Your task to perform on an android device: Open Chrome and go to settings Image 0: 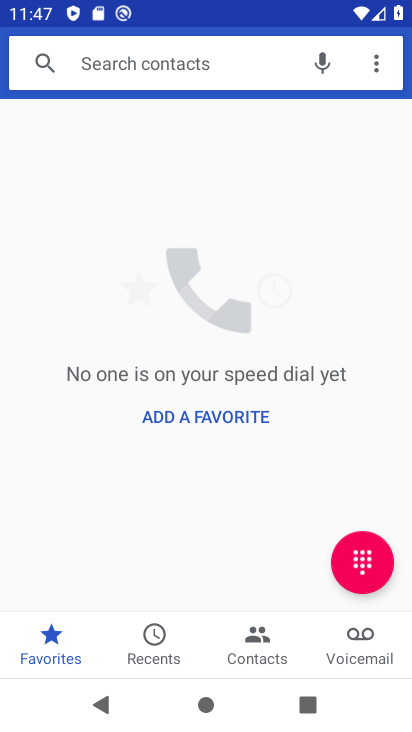
Step 0: press home button
Your task to perform on an android device: Open Chrome and go to settings Image 1: 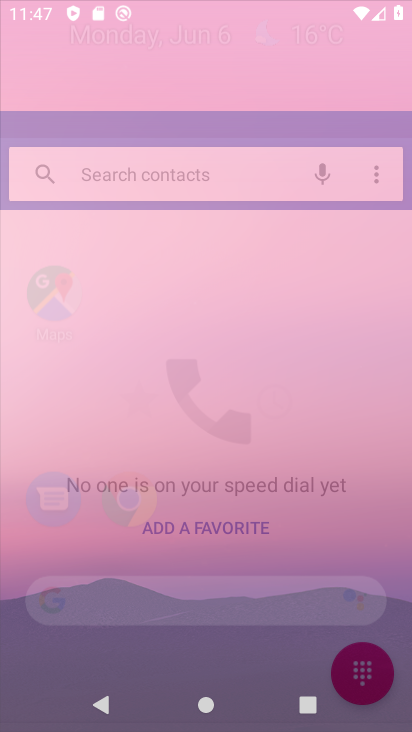
Step 1: drag from (146, 534) to (180, 142)
Your task to perform on an android device: Open Chrome and go to settings Image 2: 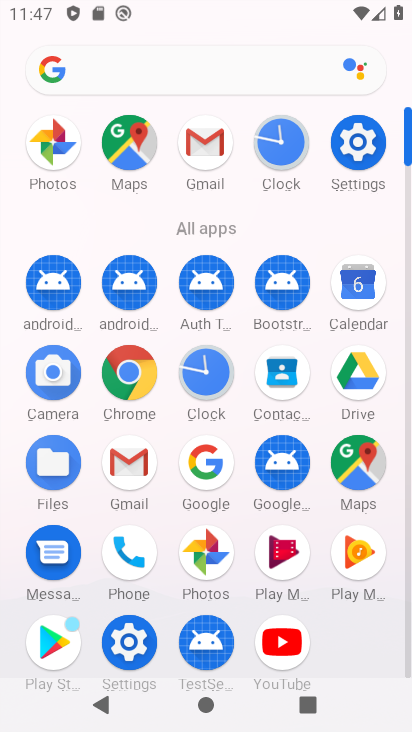
Step 2: click (122, 361)
Your task to perform on an android device: Open Chrome and go to settings Image 3: 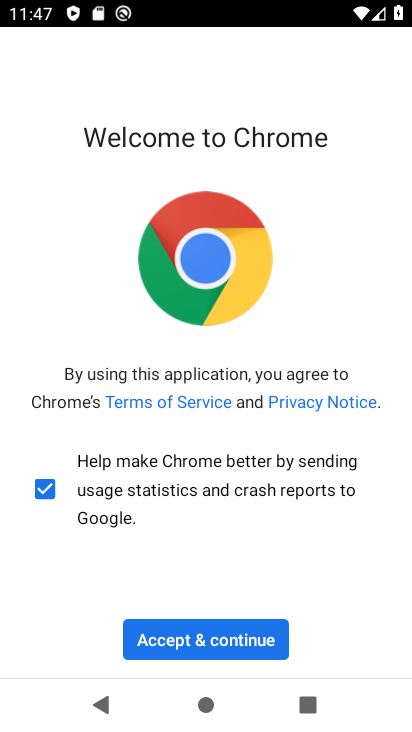
Step 3: drag from (221, 636) to (233, 247)
Your task to perform on an android device: Open Chrome and go to settings Image 4: 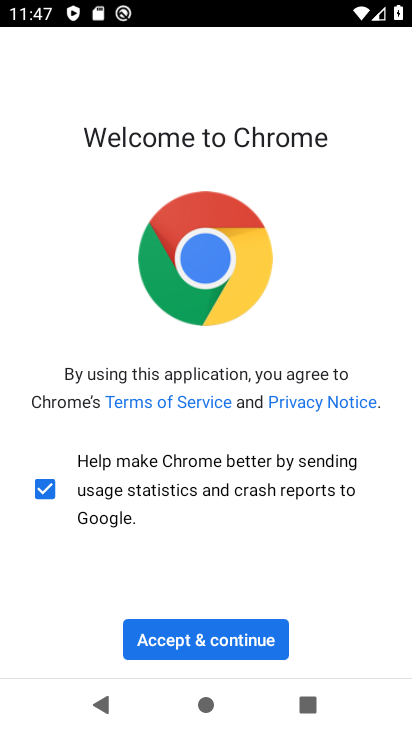
Step 4: click (174, 647)
Your task to perform on an android device: Open Chrome and go to settings Image 5: 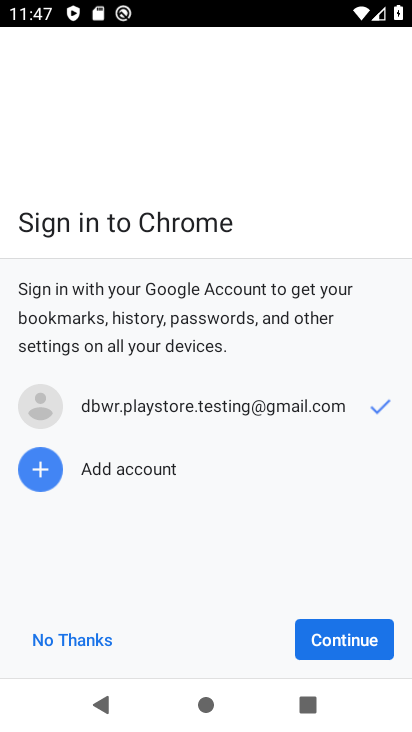
Step 5: click (361, 642)
Your task to perform on an android device: Open Chrome and go to settings Image 6: 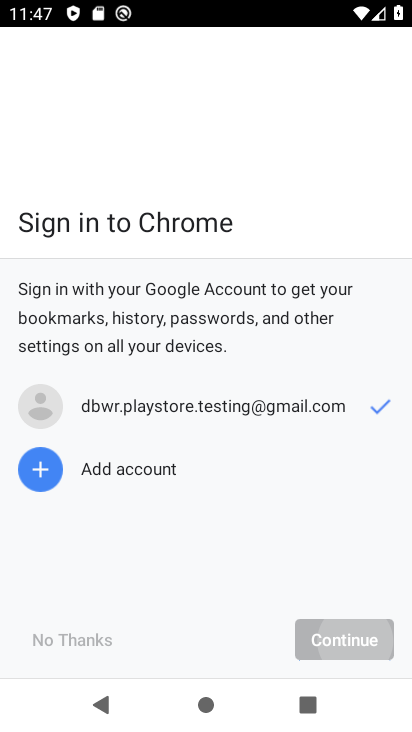
Step 6: click (361, 642)
Your task to perform on an android device: Open Chrome and go to settings Image 7: 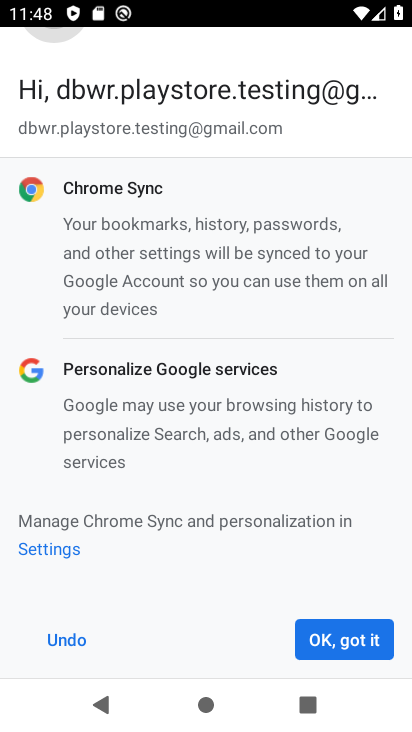
Step 7: click (358, 635)
Your task to perform on an android device: Open Chrome and go to settings Image 8: 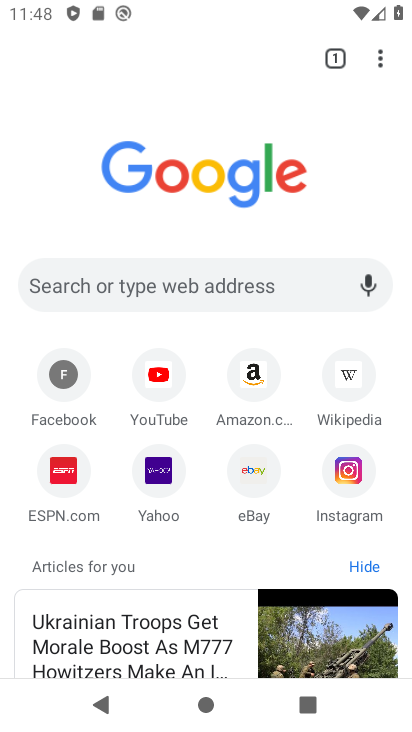
Step 8: task complete